Your task to perform on an android device: turn vacation reply on in the gmail app Image 0: 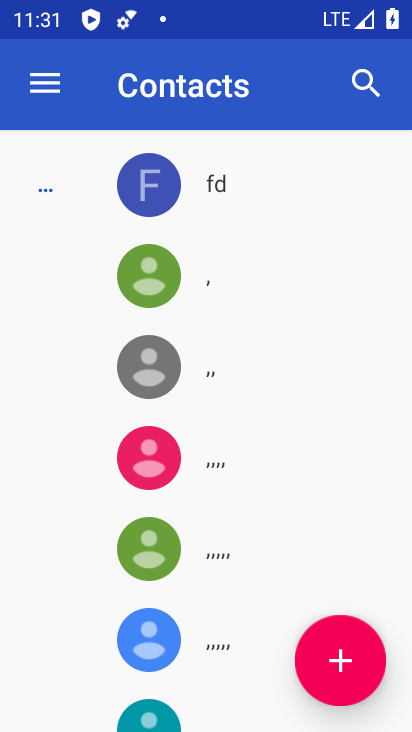
Step 0: press home button
Your task to perform on an android device: turn vacation reply on in the gmail app Image 1: 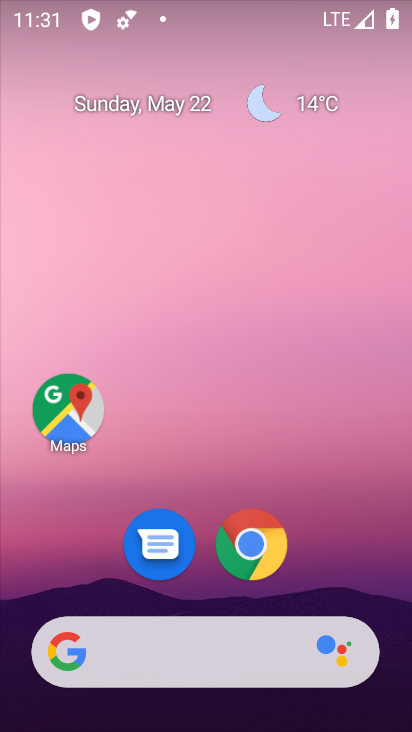
Step 1: drag from (240, 592) to (156, 299)
Your task to perform on an android device: turn vacation reply on in the gmail app Image 2: 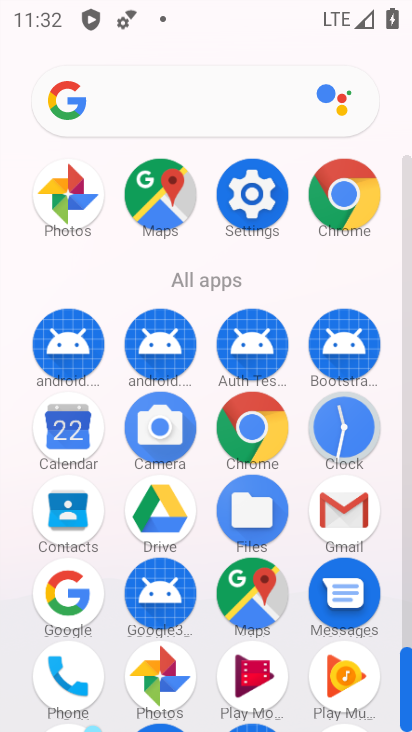
Step 2: click (347, 521)
Your task to perform on an android device: turn vacation reply on in the gmail app Image 3: 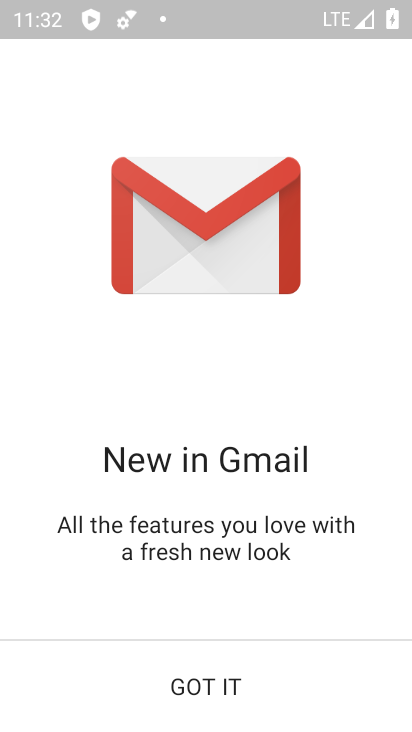
Step 3: click (204, 692)
Your task to perform on an android device: turn vacation reply on in the gmail app Image 4: 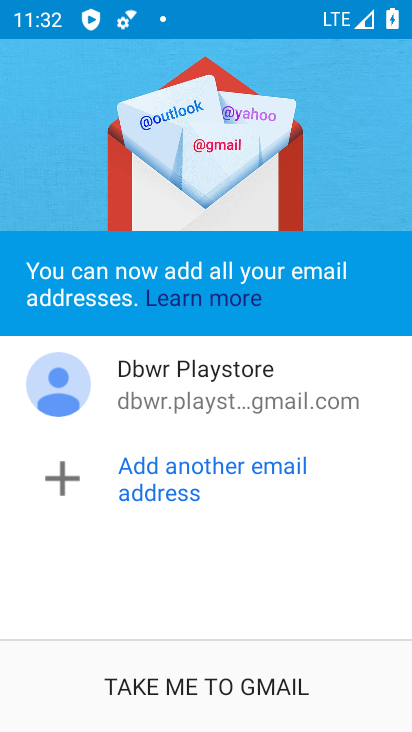
Step 4: click (170, 696)
Your task to perform on an android device: turn vacation reply on in the gmail app Image 5: 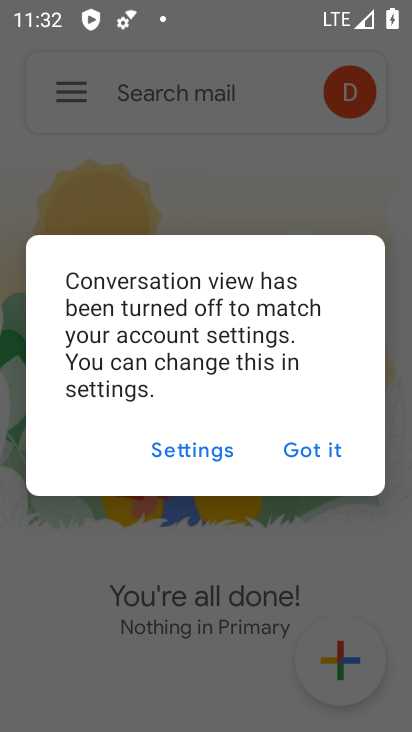
Step 5: click (298, 457)
Your task to perform on an android device: turn vacation reply on in the gmail app Image 6: 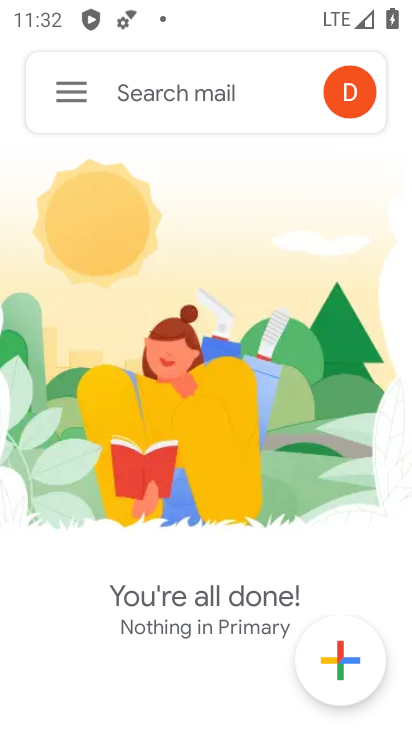
Step 6: click (69, 101)
Your task to perform on an android device: turn vacation reply on in the gmail app Image 7: 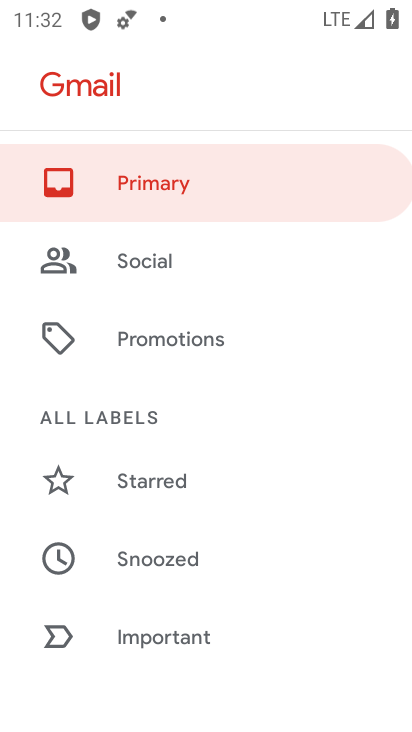
Step 7: drag from (162, 590) to (154, 191)
Your task to perform on an android device: turn vacation reply on in the gmail app Image 8: 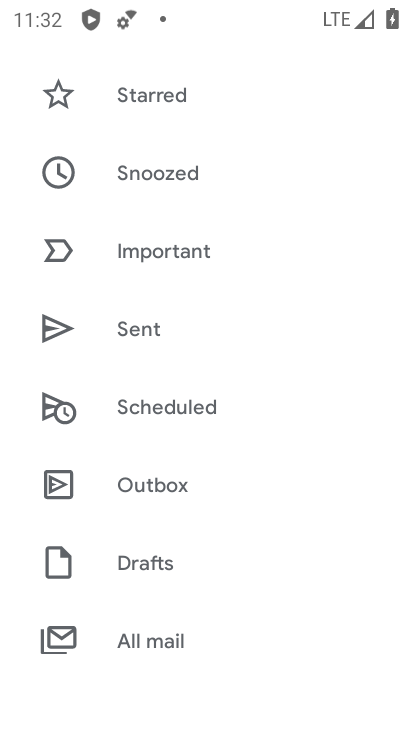
Step 8: drag from (203, 628) to (184, 155)
Your task to perform on an android device: turn vacation reply on in the gmail app Image 9: 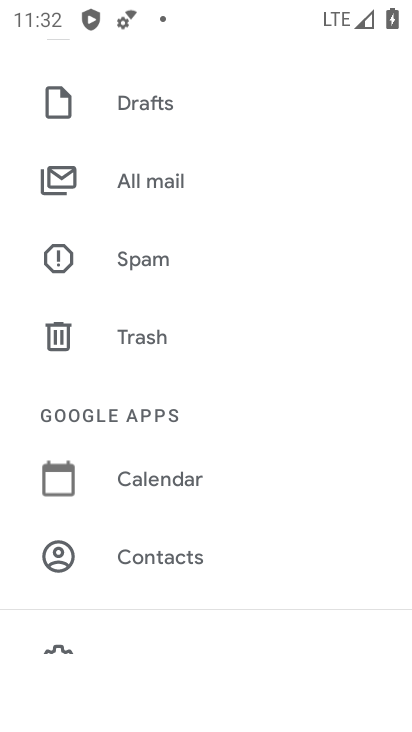
Step 9: drag from (170, 600) to (175, 214)
Your task to perform on an android device: turn vacation reply on in the gmail app Image 10: 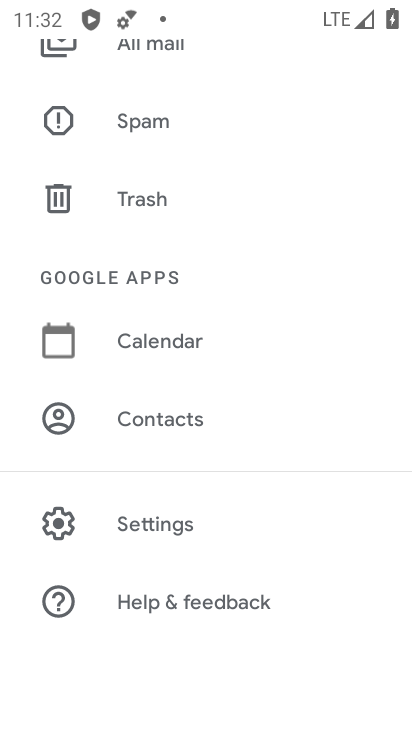
Step 10: click (159, 520)
Your task to perform on an android device: turn vacation reply on in the gmail app Image 11: 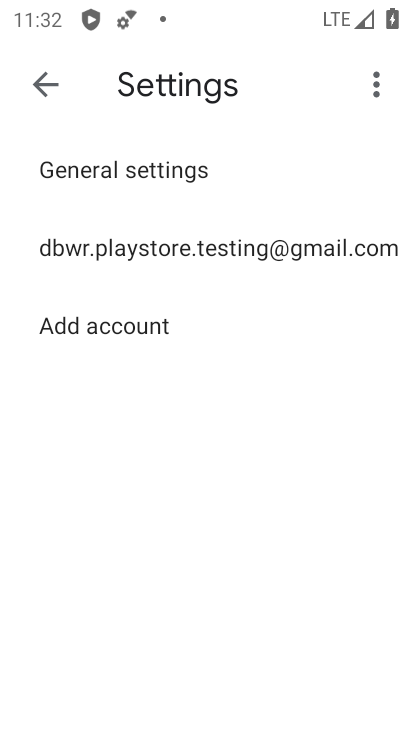
Step 11: click (161, 247)
Your task to perform on an android device: turn vacation reply on in the gmail app Image 12: 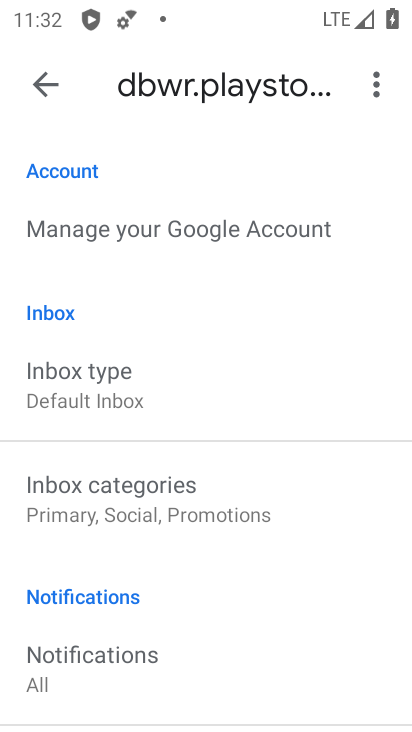
Step 12: drag from (191, 593) to (173, 266)
Your task to perform on an android device: turn vacation reply on in the gmail app Image 13: 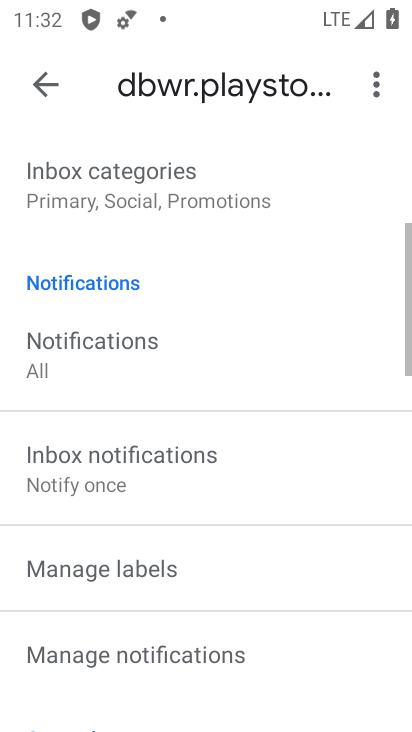
Step 13: drag from (216, 597) to (194, 226)
Your task to perform on an android device: turn vacation reply on in the gmail app Image 14: 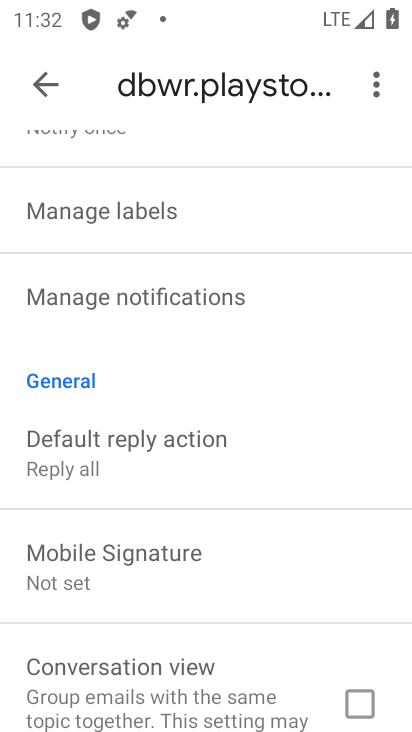
Step 14: drag from (232, 600) to (193, 291)
Your task to perform on an android device: turn vacation reply on in the gmail app Image 15: 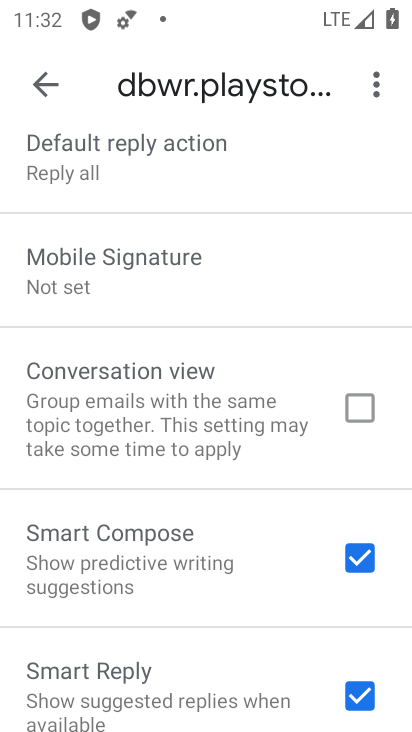
Step 15: drag from (212, 640) to (207, 288)
Your task to perform on an android device: turn vacation reply on in the gmail app Image 16: 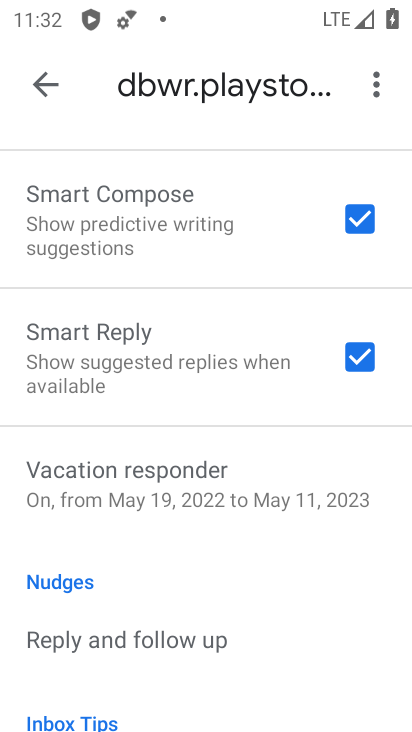
Step 16: click (174, 509)
Your task to perform on an android device: turn vacation reply on in the gmail app Image 17: 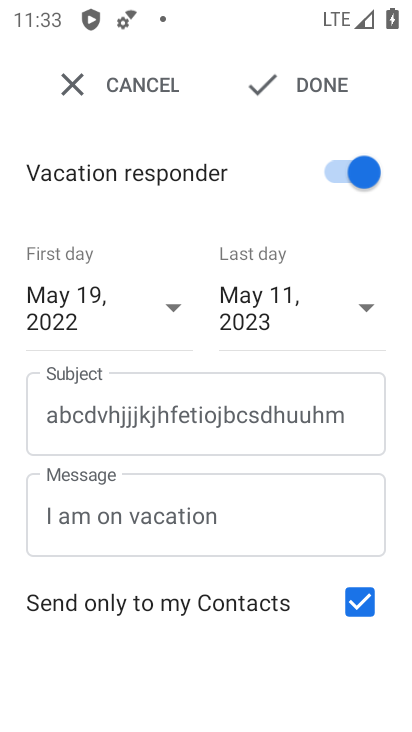
Step 17: task complete